Your task to perform on an android device: What is the news today? Image 0: 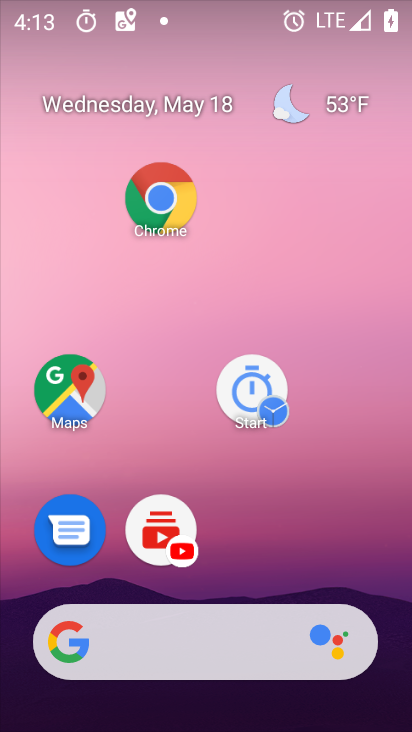
Step 0: click (332, 455)
Your task to perform on an android device: What is the news today? Image 1: 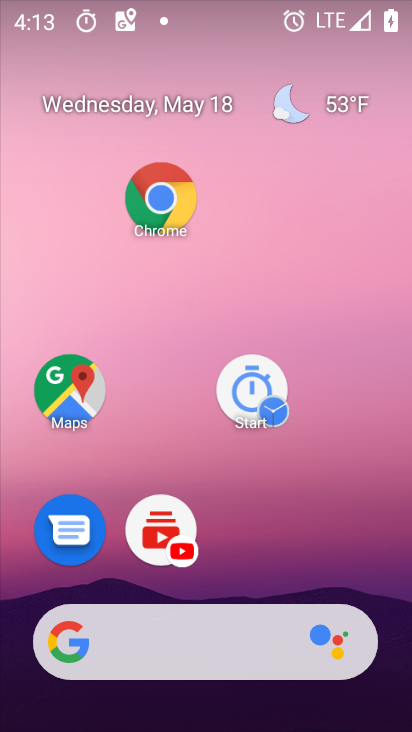
Step 1: click (312, 367)
Your task to perform on an android device: What is the news today? Image 2: 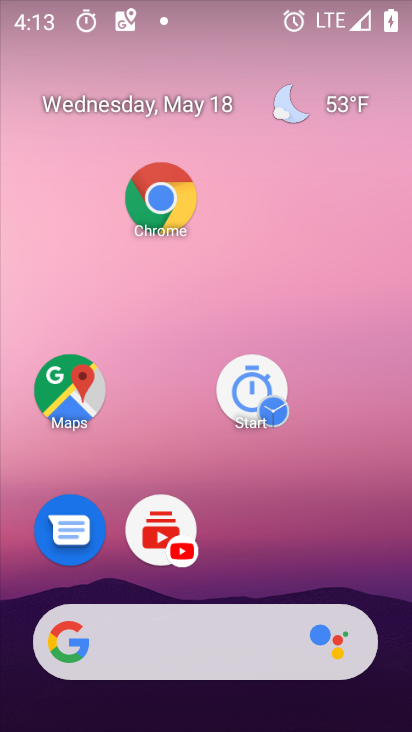
Step 2: click (409, 308)
Your task to perform on an android device: What is the news today? Image 3: 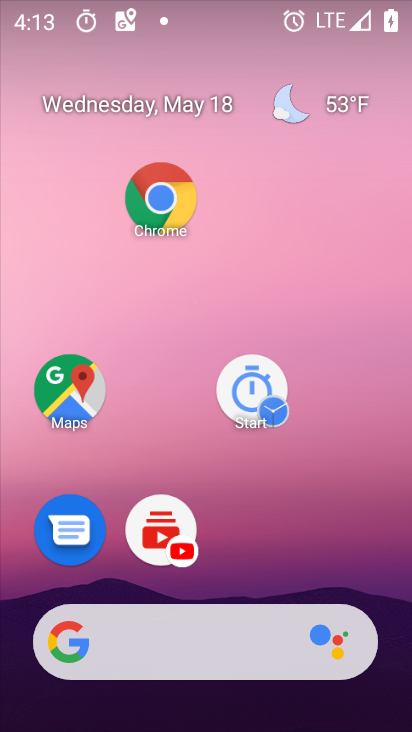
Step 3: click (371, 307)
Your task to perform on an android device: What is the news today? Image 4: 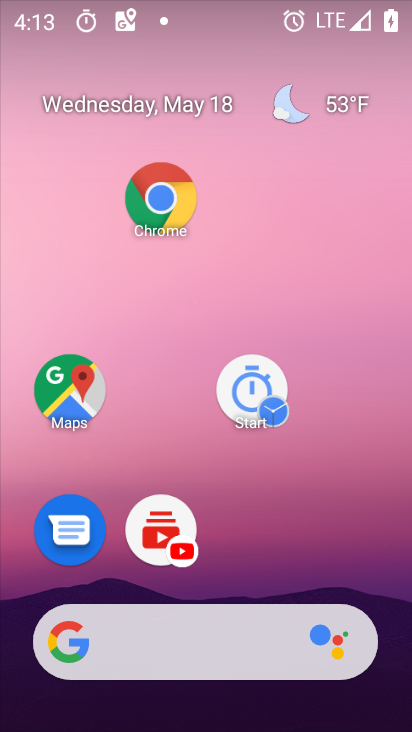
Step 4: drag from (241, 463) to (369, 659)
Your task to perform on an android device: What is the news today? Image 5: 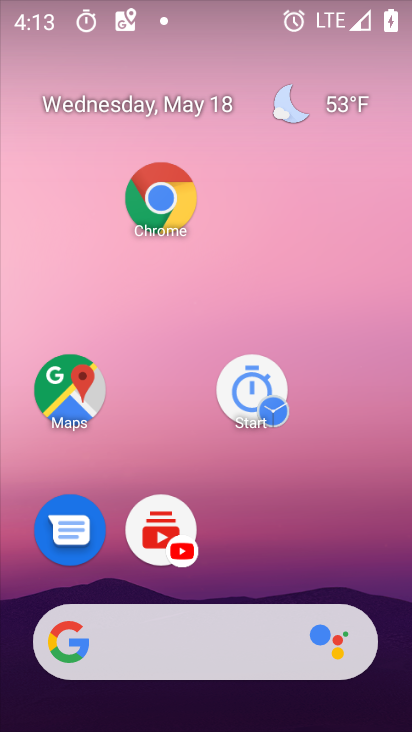
Step 5: drag from (19, 215) to (405, 317)
Your task to perform on an android device: What is the news today? Image 6: 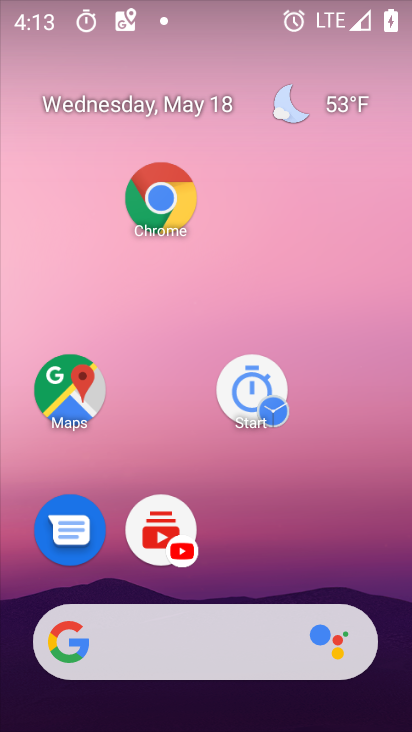
Step 6: click (293, 111)
Your task to perform on an android device: What is the news today? Image 7: 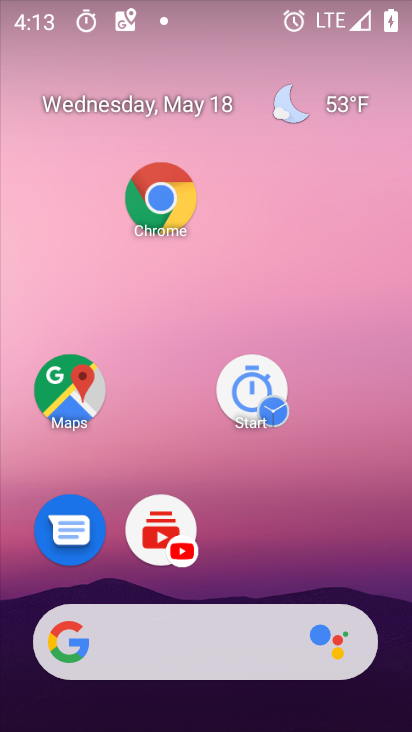
Step 7: click (293, 111)
Your task to perform on an android device: What is the news today? Image 8: 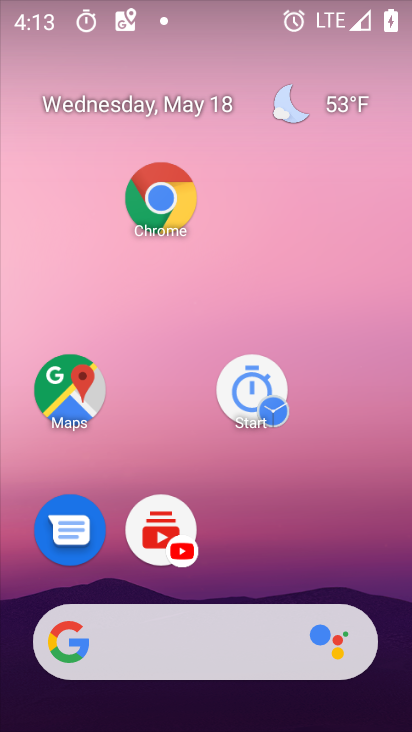
Step 8: click (293, 111)
Your task to perform on an android device: What is the news today? Image 9: 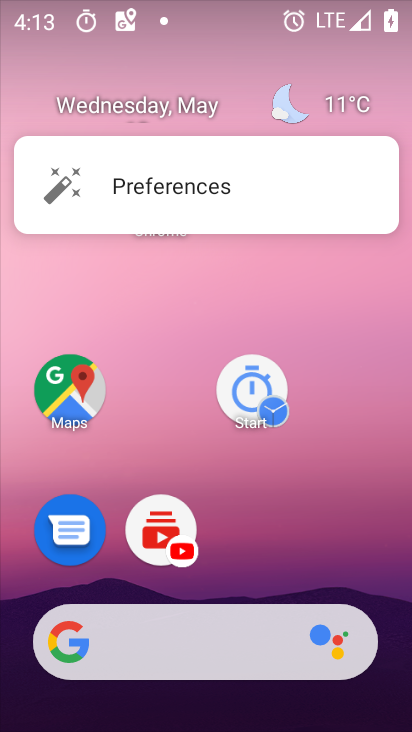
Step 9: click (288, 102)
Your task to perform on an android device: What is the news today? Image 10: 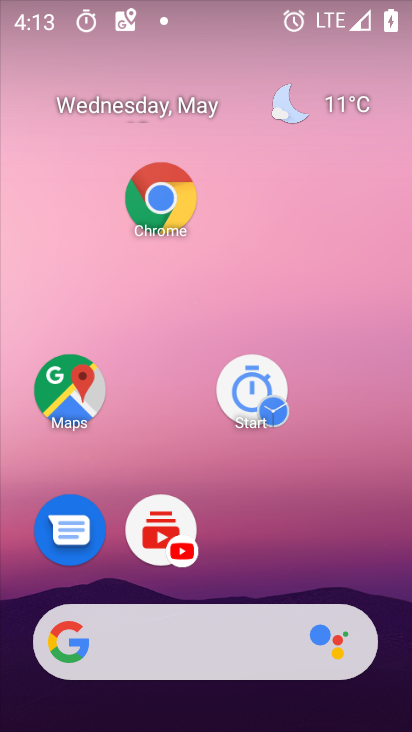
Step 10: click (288, 102)
Your task to perform on an android device: What is the news today? Image 11: 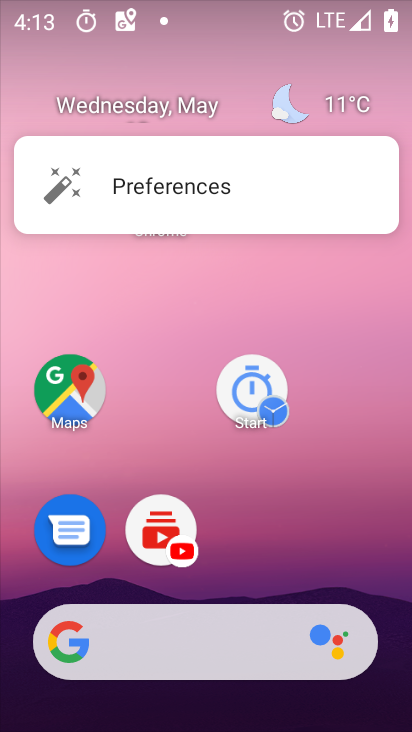
Step 11: click (271, 129)
Your task to perform on an android device: What is the news today? Image 12: 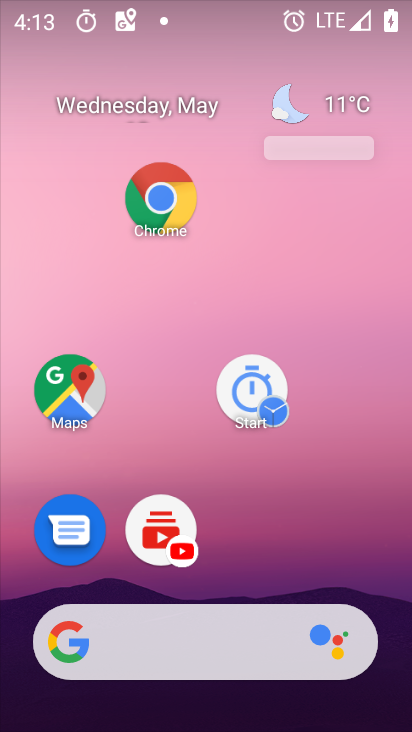
Step 12: click (274, 107)
Your task to perform on an android device: What is the news today? Image 13: 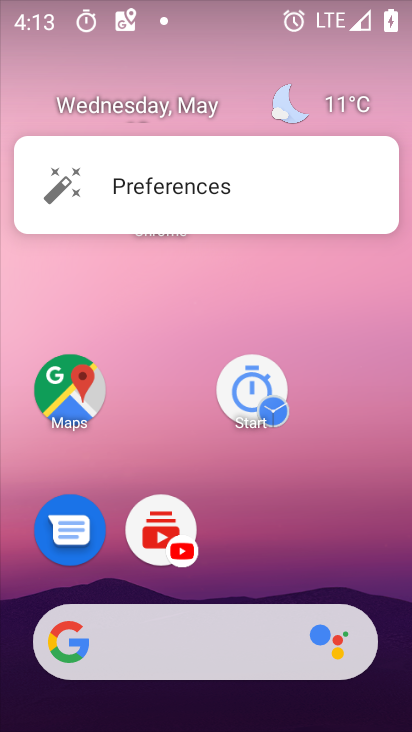
Step 13: click (311, 93)
Your task to perform on an android device: What is the news today? Image 14: 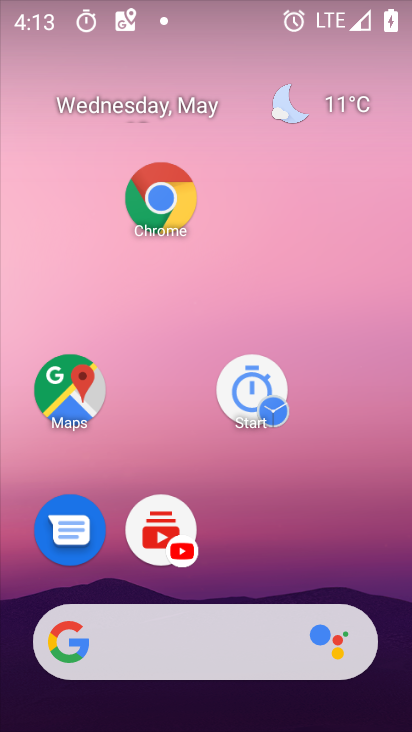
Step 14: click (311, 93)
Your task to perform on an android device: What is the news today? Image 15: 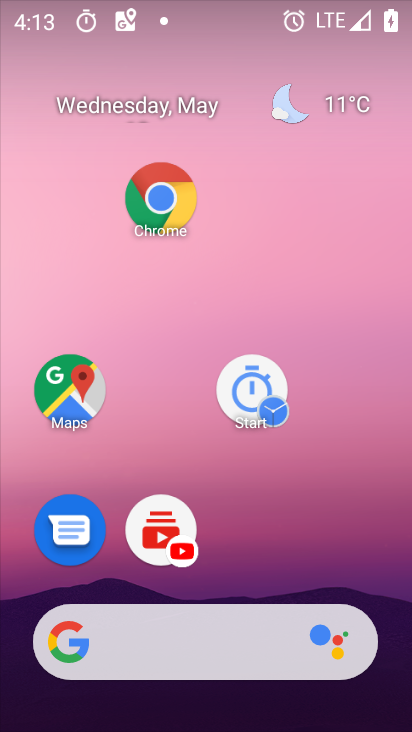
Step 15: click (311, 93)
Your task to perform on an android device: What is the news today? Image 16: 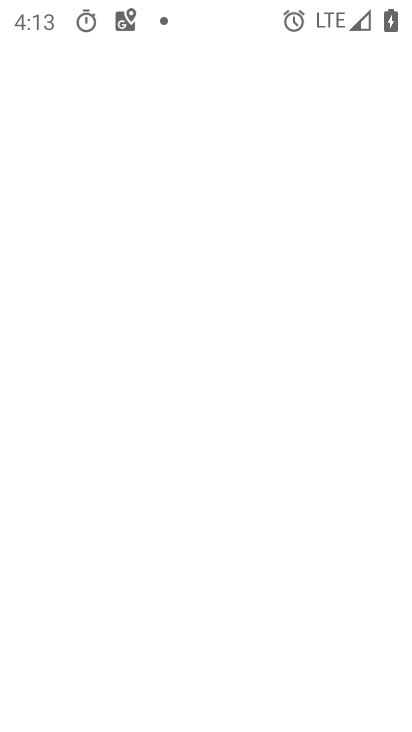
Step 16: click (303, 101)
Your task to perform on an android device: What is the news today? Image 17: 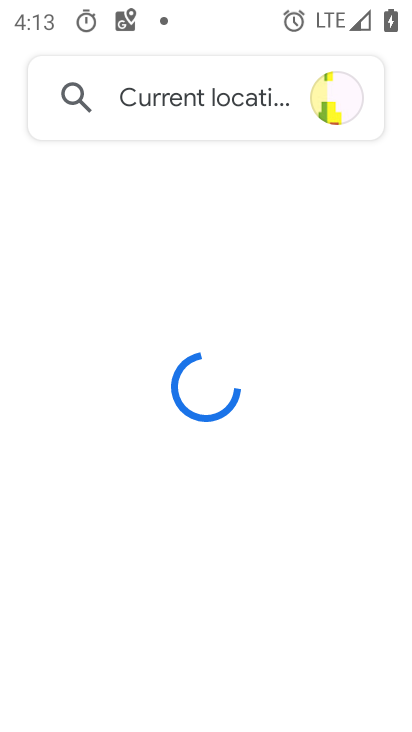
Step 17: click (302, 102)
Your task to perform on an android device: What is the news today? Image 18: 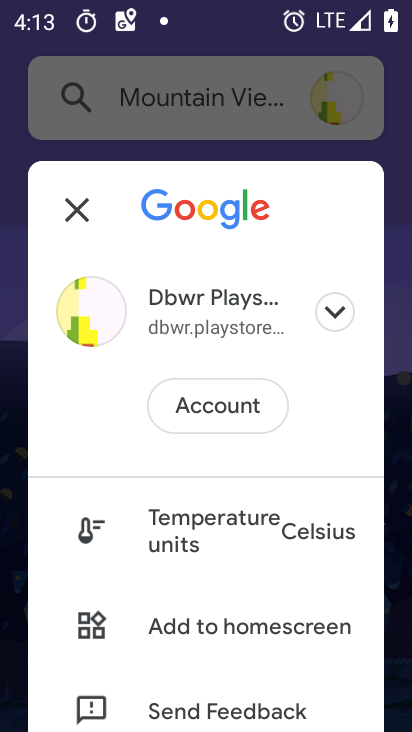
Step 18: click (344, 294)
Your task to perform on an android device: What is the news today? Image 19: 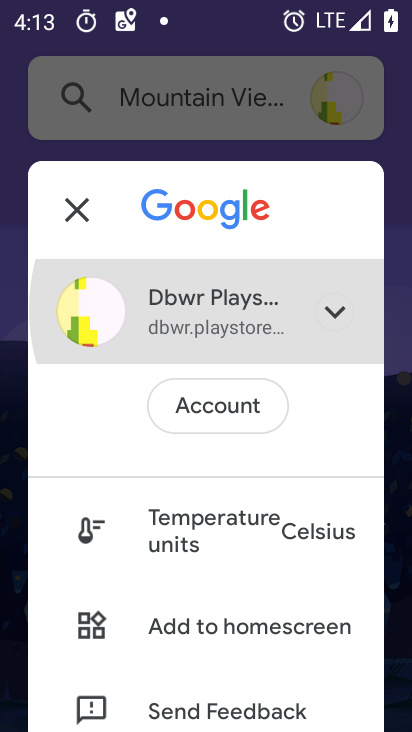
Step 19: click (344, 295)
Your task to perform on an android device: What is the news today? Image 20: 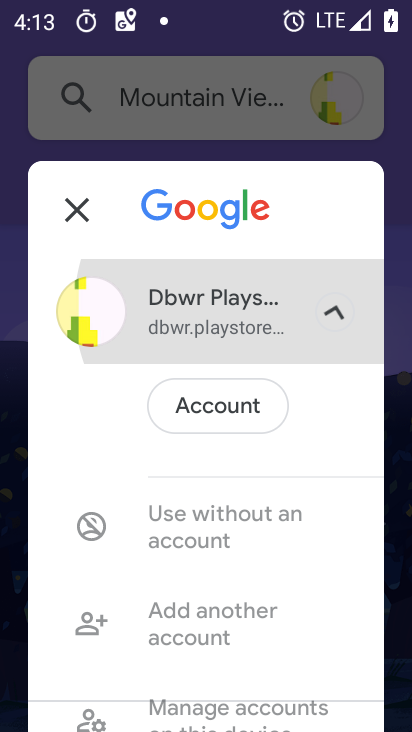
Step 20: click (408, 200)
Your task to perform on an android device: What is the news today? Image 21: 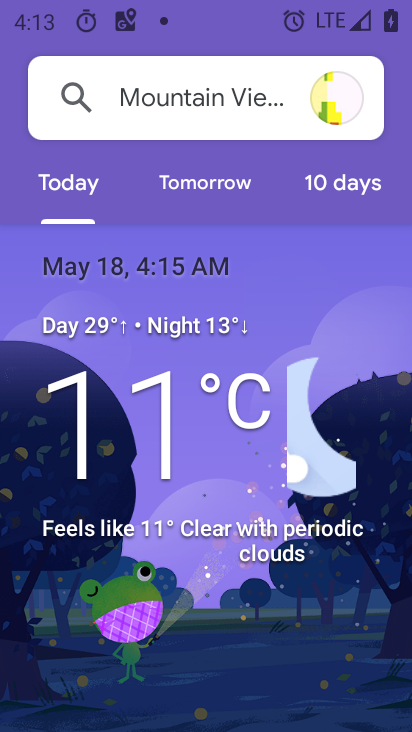
Step 21: click (388, 153)
Your task to perform on an android device: What is the news today? Image 22: 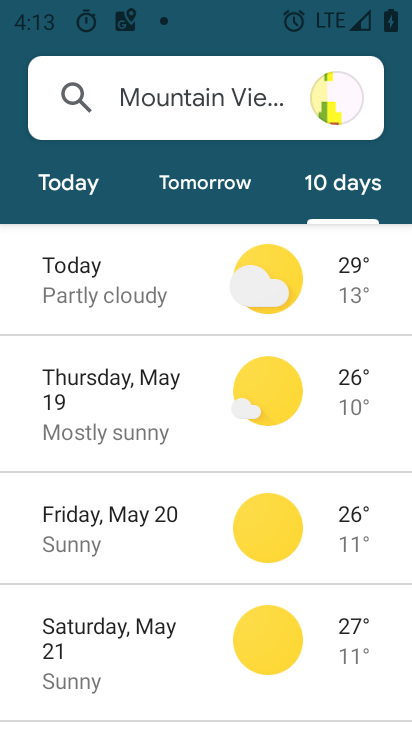
Step 22: task complete